Your task to perform on an android device: Open accessibility settings Image 0: 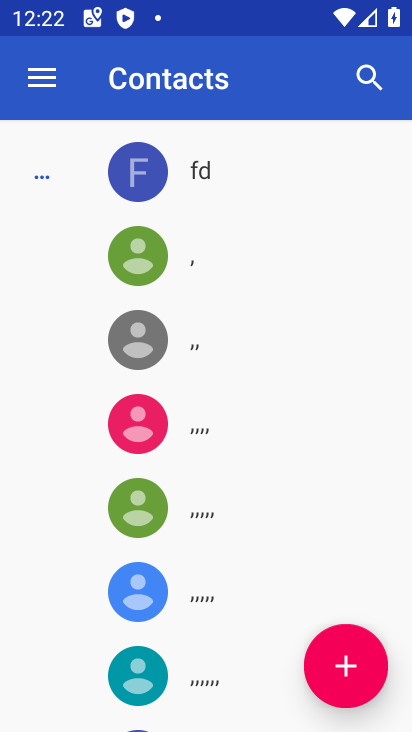
Step 0: press home button
Your task to perform on an android device: Open accessibility settings Image 1: 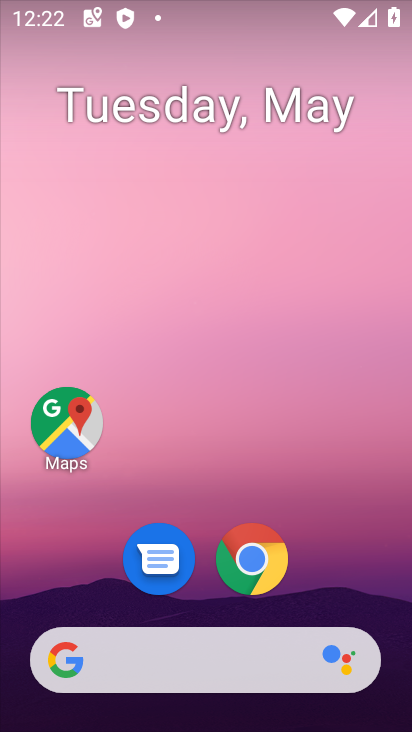
Step 1: drag from (371, 572) to (351, 129)
Your task to perform on an android device: Open accessibility settings Image 2: 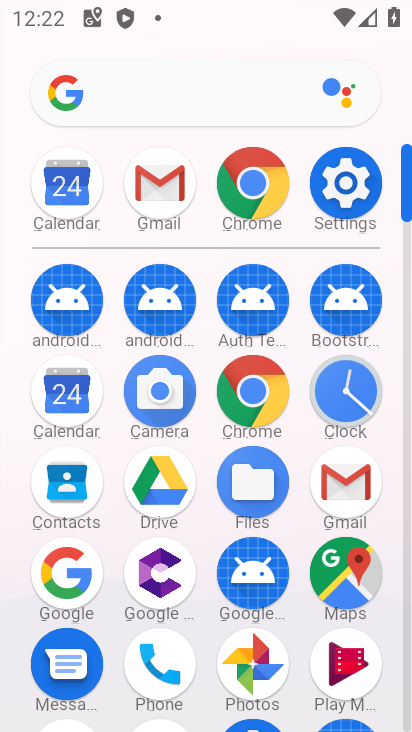
Step 2: click (346, 192)
Your task to perform on an android device: Open accessibility settings Image 3: 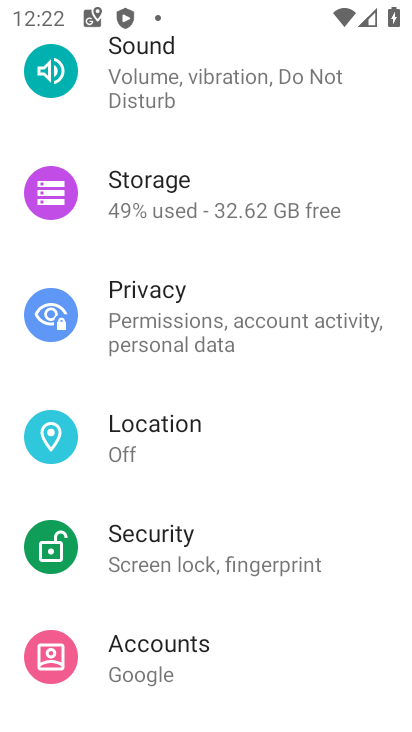
Step 3: drag from (255, 217) to (229, 636)
Your task to perform on an android device: Open accessibility settings Image 4: 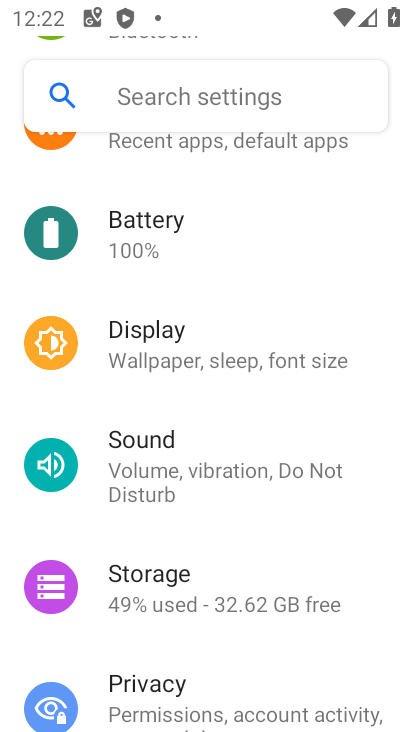
Step 4: drag from (232, 217) to (224, 625)
Your task to perform on an android device: Open accessibility settings Image 5: 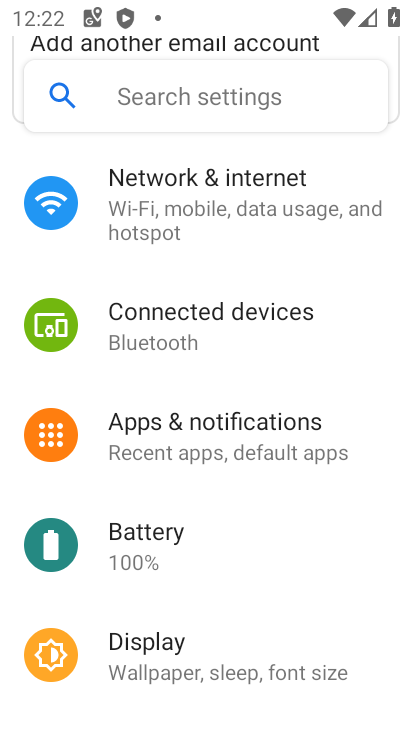
Step 5: drag from (235, 584) to (273, 265)
Your task to perform on an android device: Open accessibility settings Image 6: 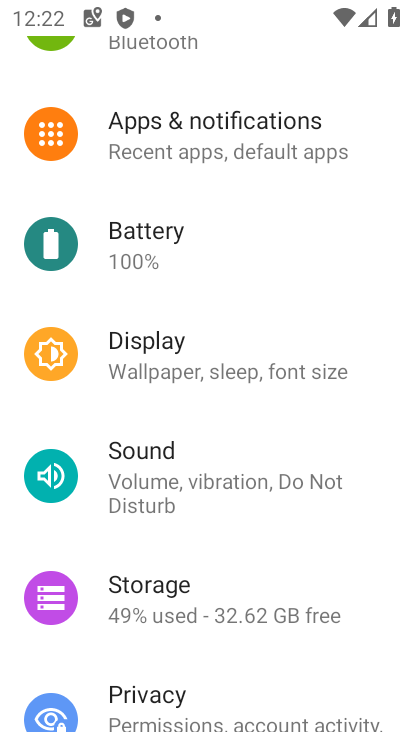
Step 6: drag from (270, 617) to (283, 86)
Your task to perform on an android device: Open accessibility settings Image 7: 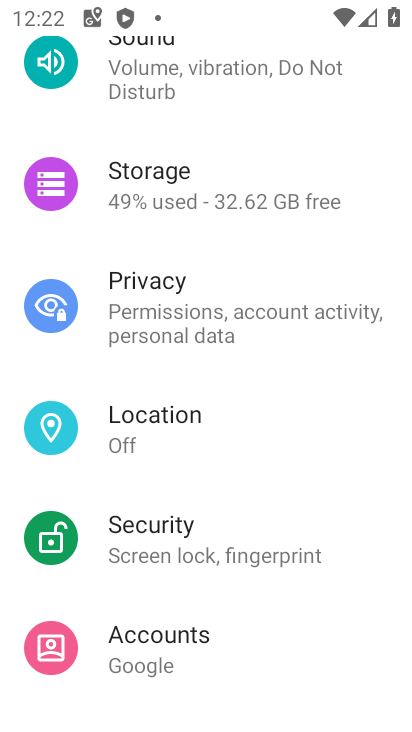
Step 7: drag from (238, 643) to (292, 211)
Your task to perform on an android device: Open accessibility settings Image 8: 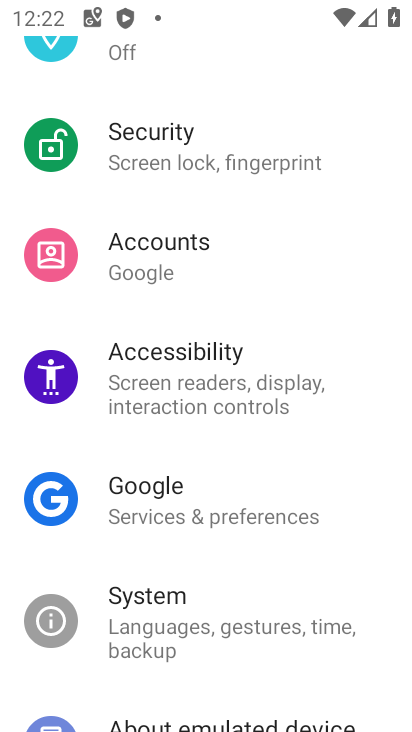
Step 8: click (319, 412)
Your task to perform on an android device: Open accessibility settings Image 9: 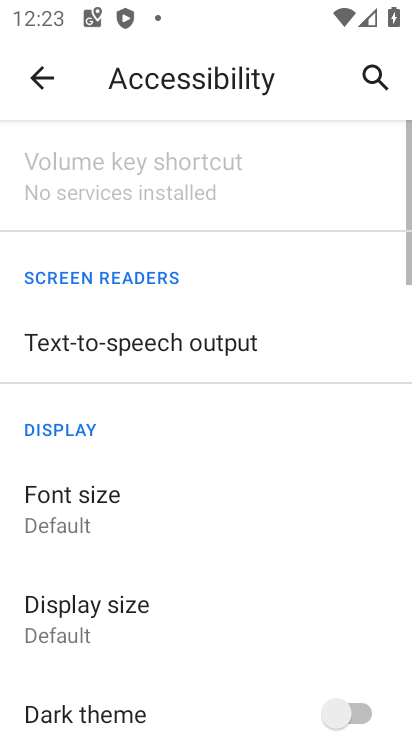
Step 9: task complete